Your task to perform on an android device: Clear all items from cart on walmart. Image 0: 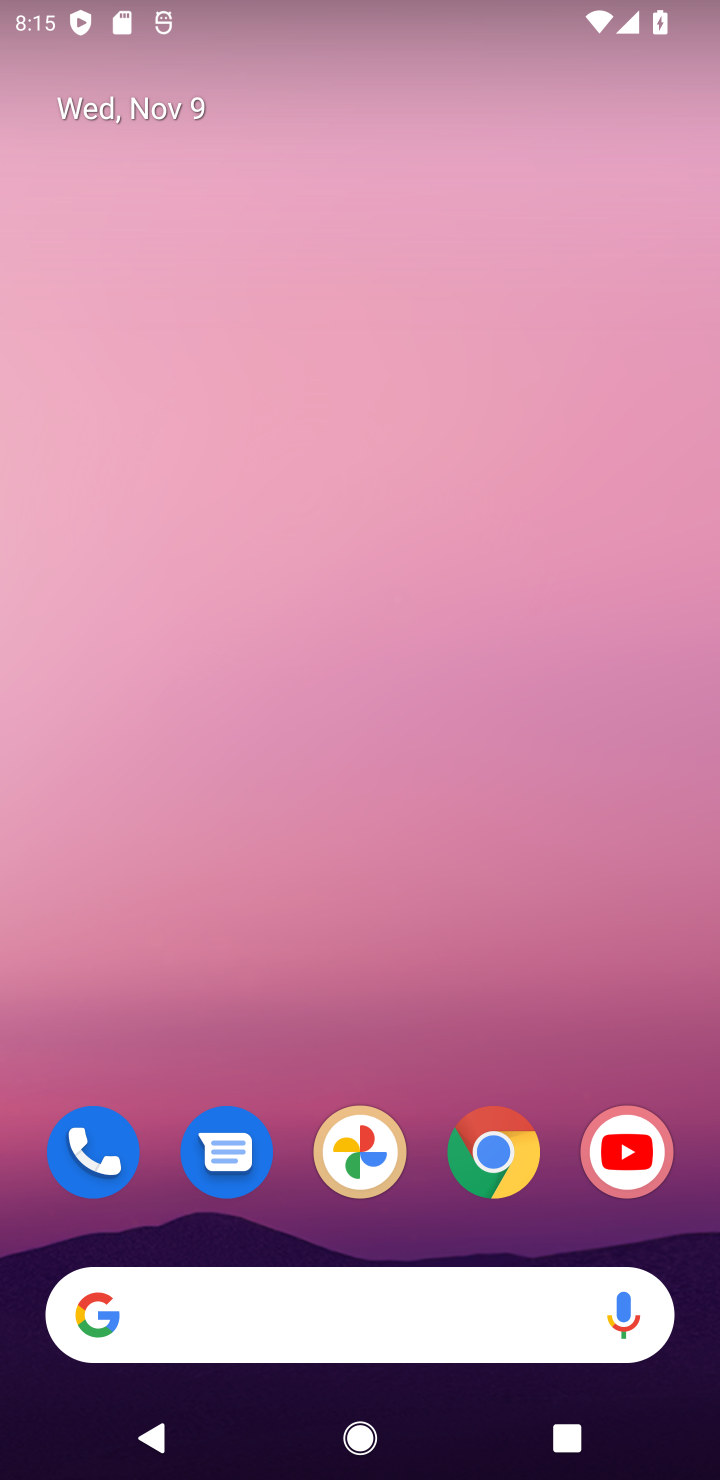
Step 0: click (500, 1149)
Your task to perform on an android device: Clear all items from cart on walmart. Image 1: 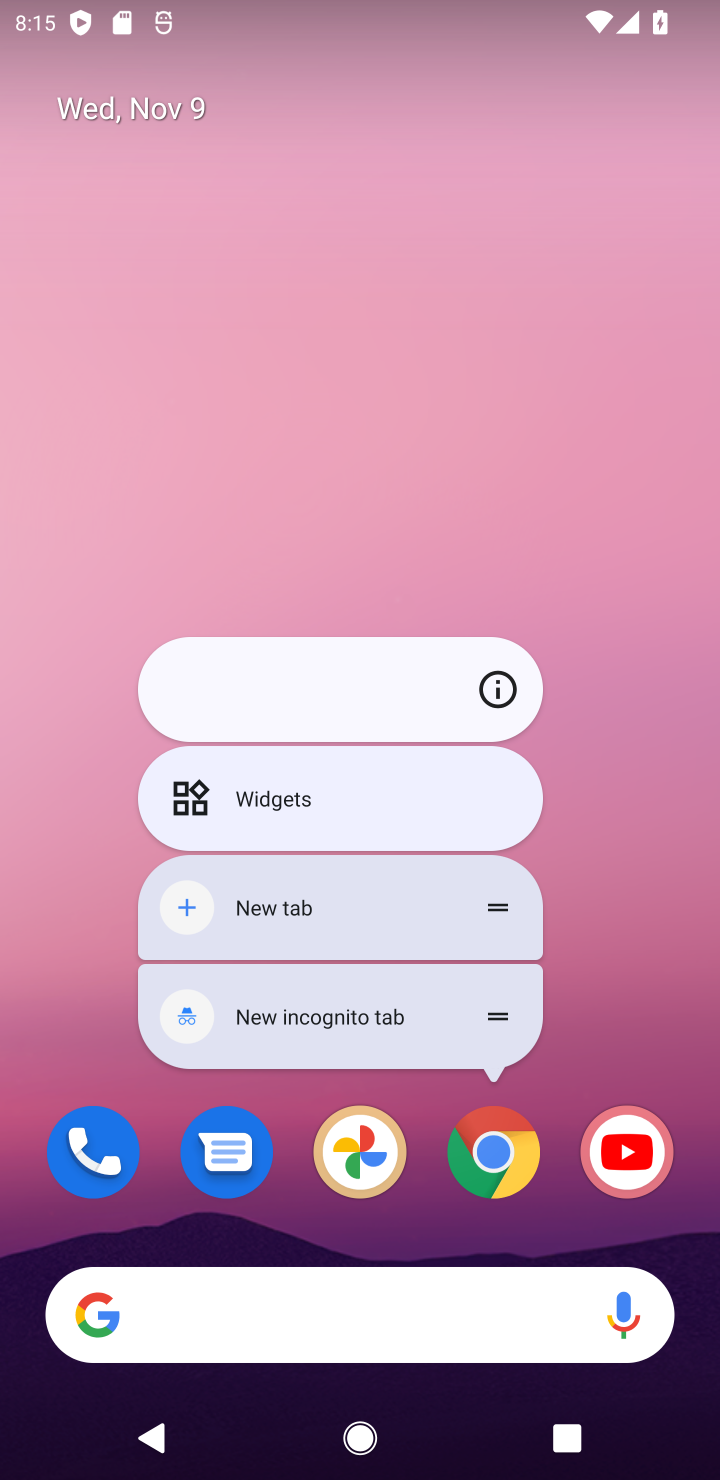
Step 1: click (500, 1149)
Your task to perform on an android device: Clear all items from cart on walmart. Image 2: 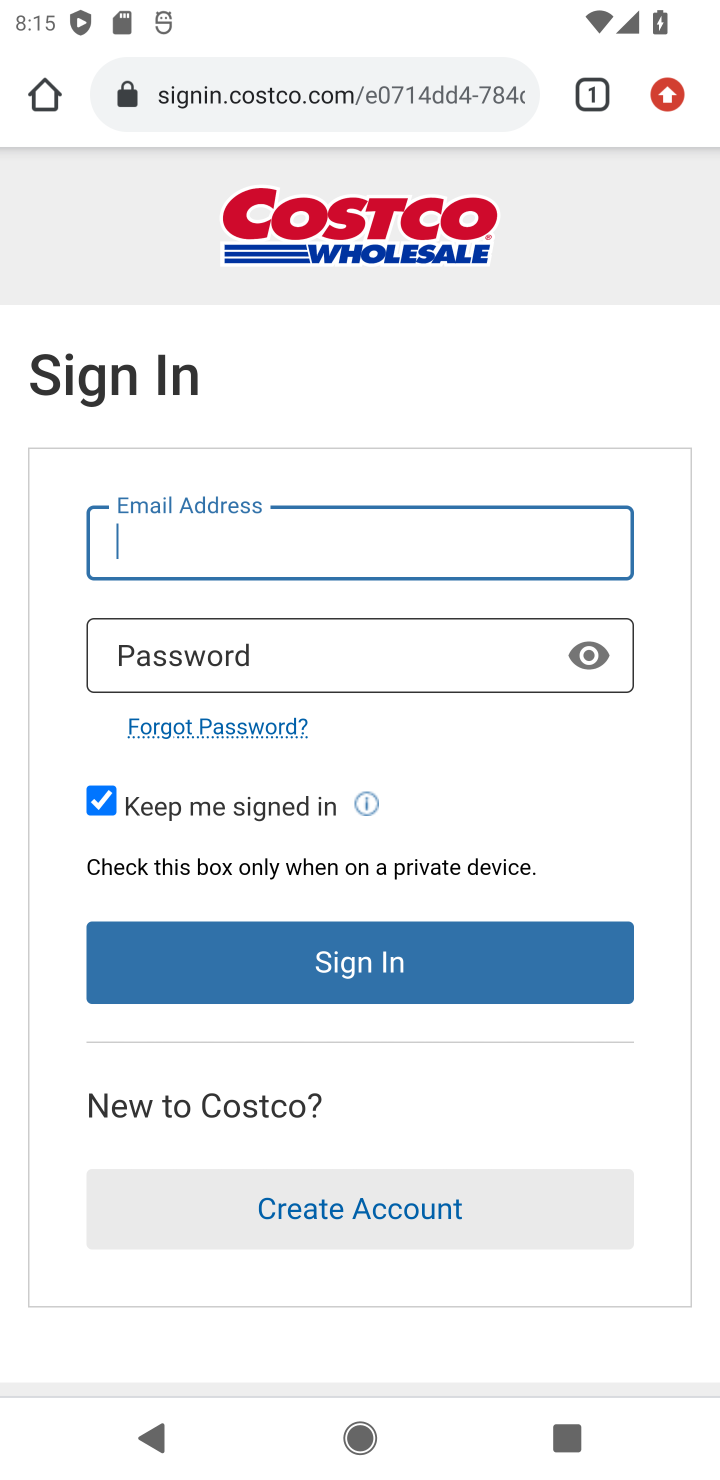
Step 2: click (415, 84)
Your task to perform on an android device: Clear all items from cart on walmart. Image 3: 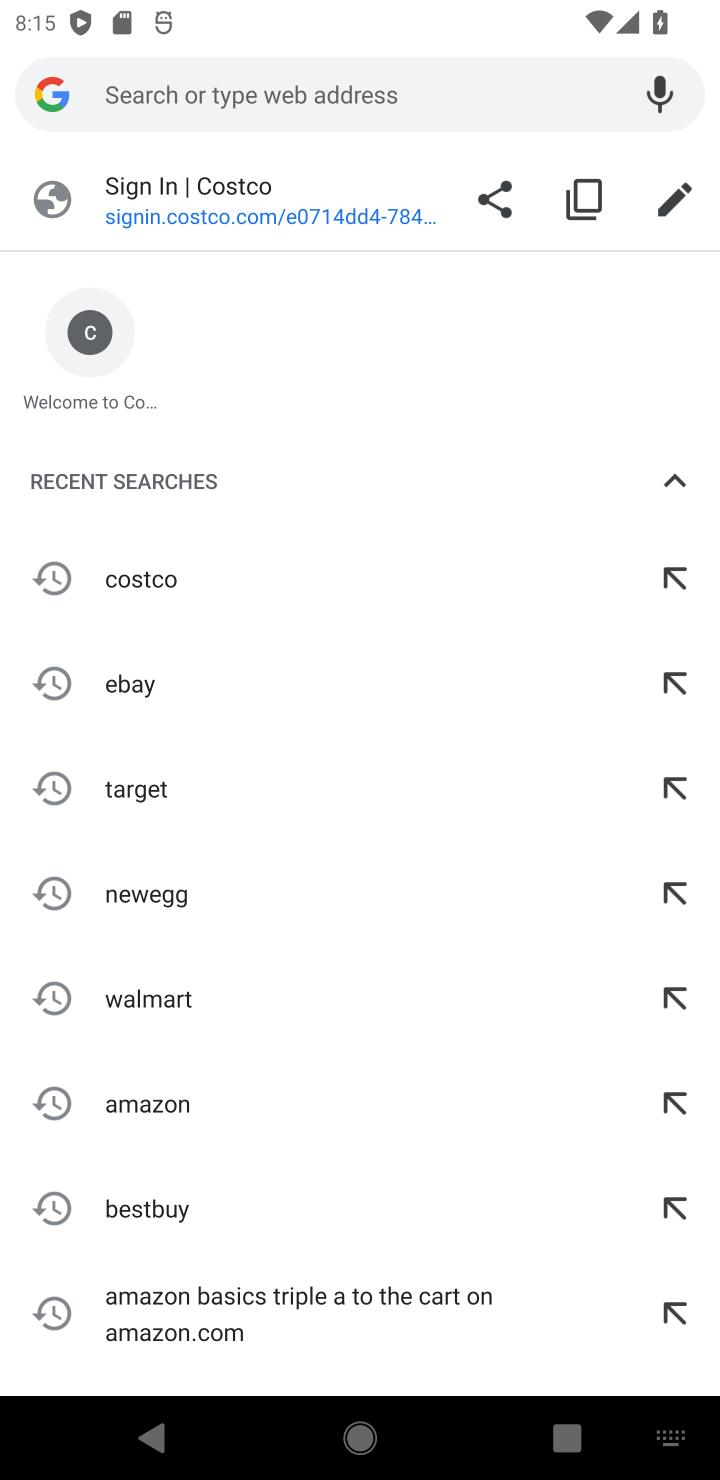
Step 3: click (140, 1001)
Your task to perform on an android device: Clear all items from cart on walmart. Image 4: 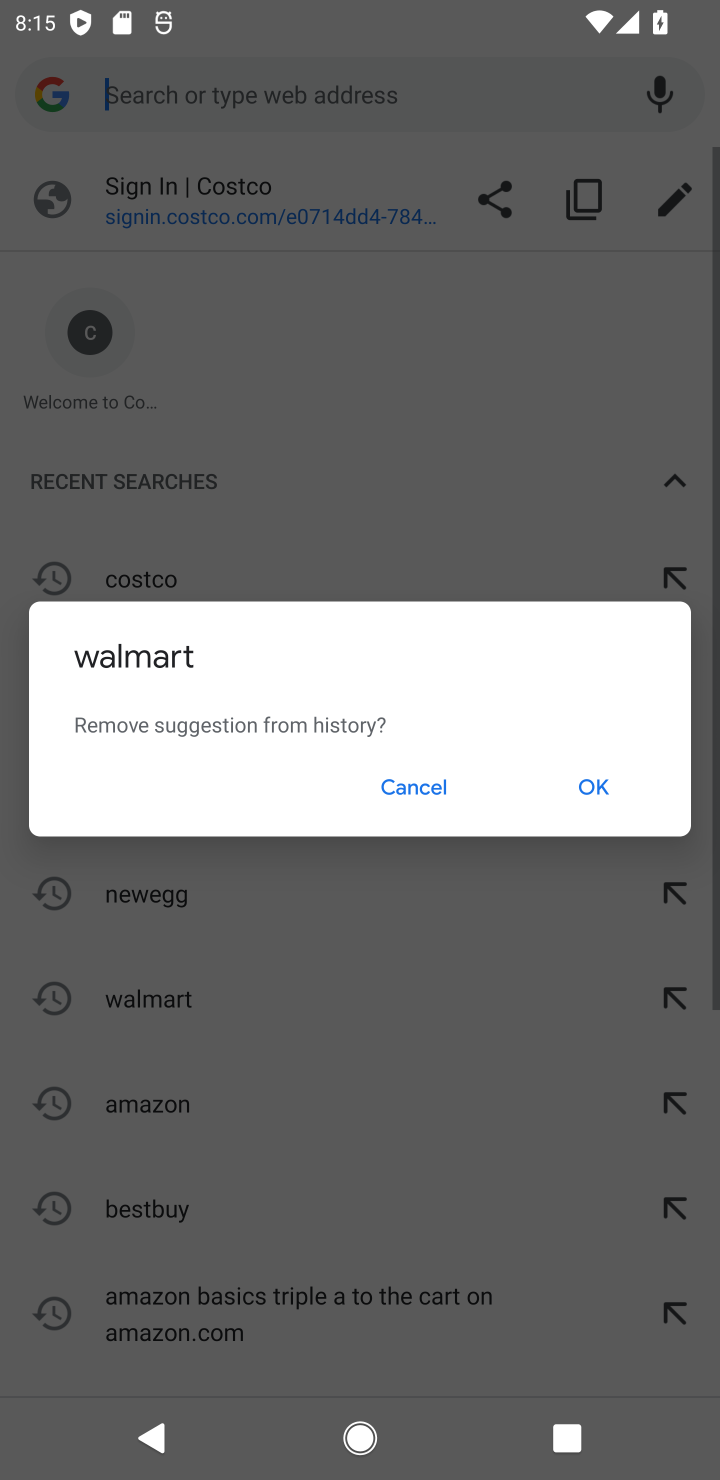
Step 4: click (419, 776)
Your task to perform on an android device: Clear all items from cart on walmart. Image 5: 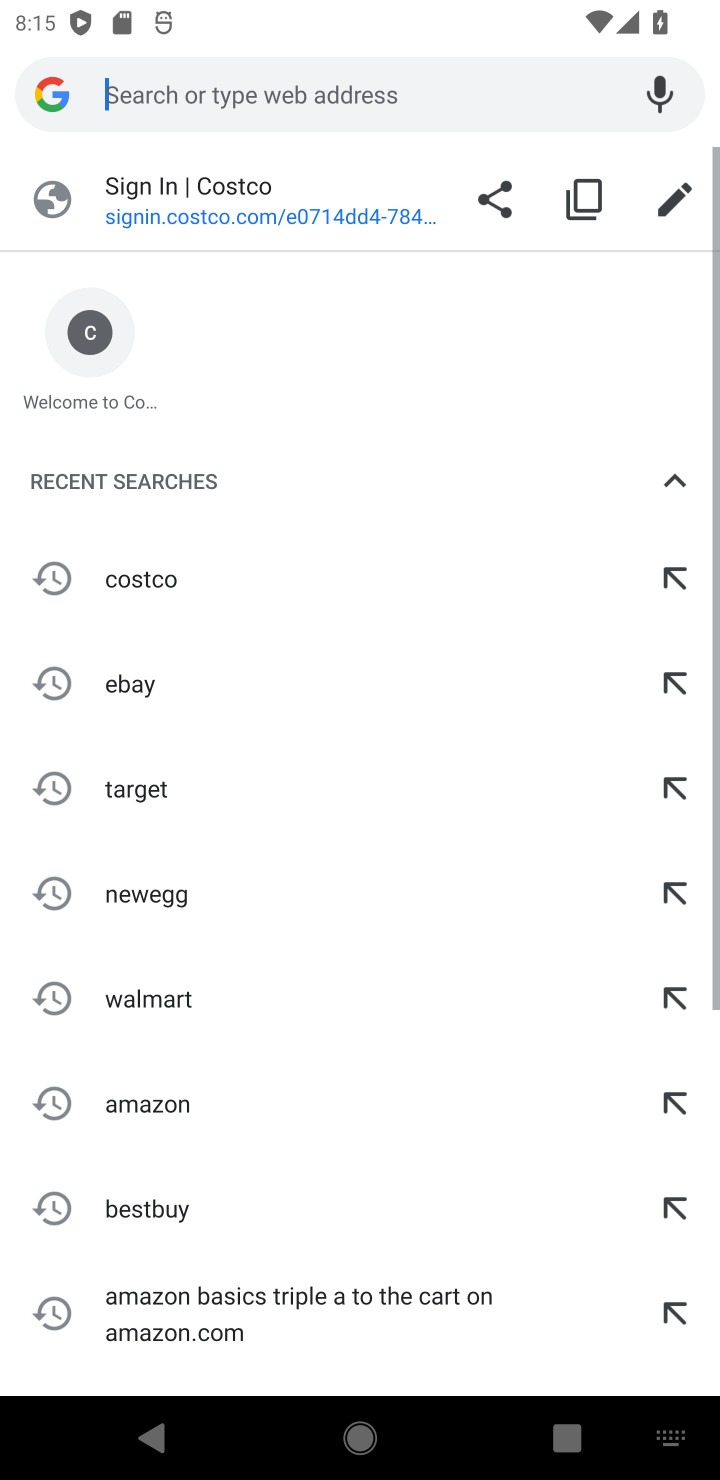
Step 5: click (143, 894)
Your task to perform on an android device: Clear all items from cart on walmart. Image 6: 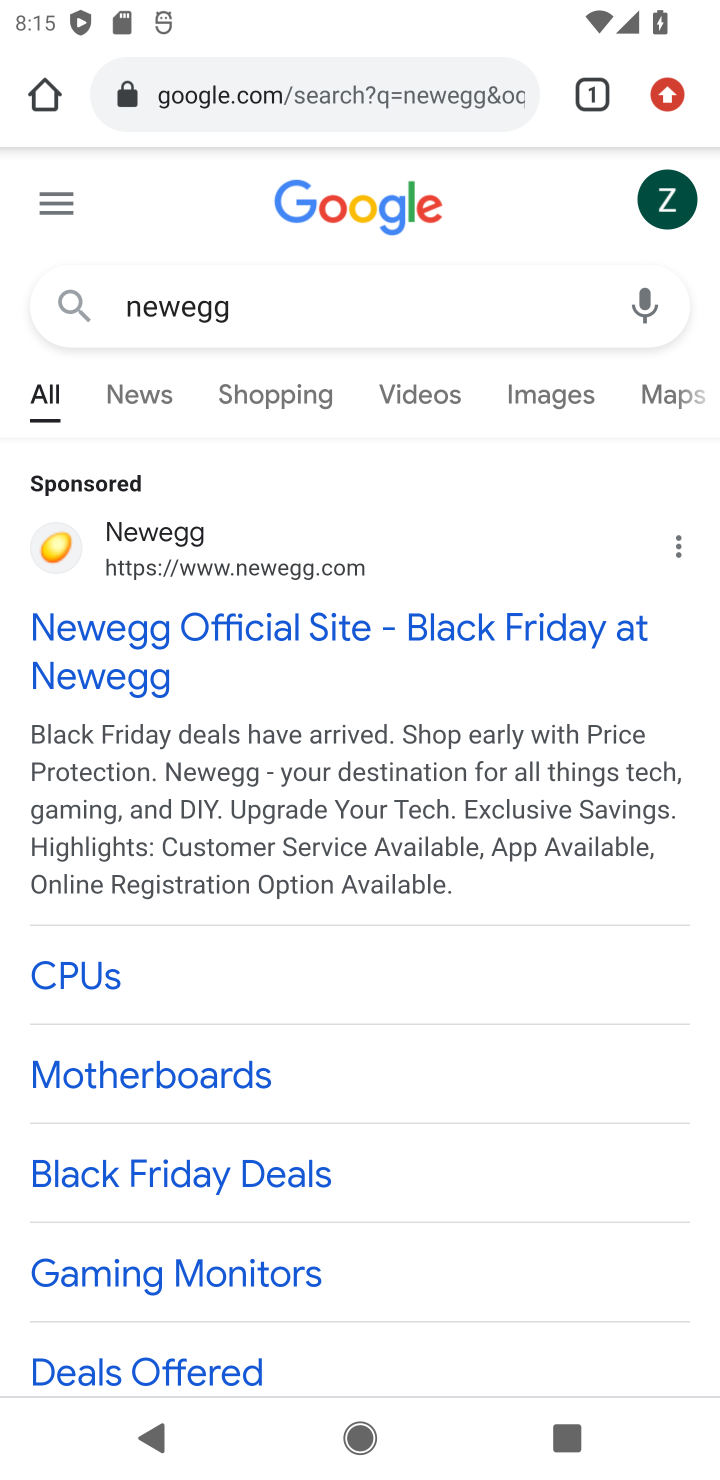
Step 6: click (200, 628)
Your task to perform on an android device: Clear all items from cart on walmart. Image 7: 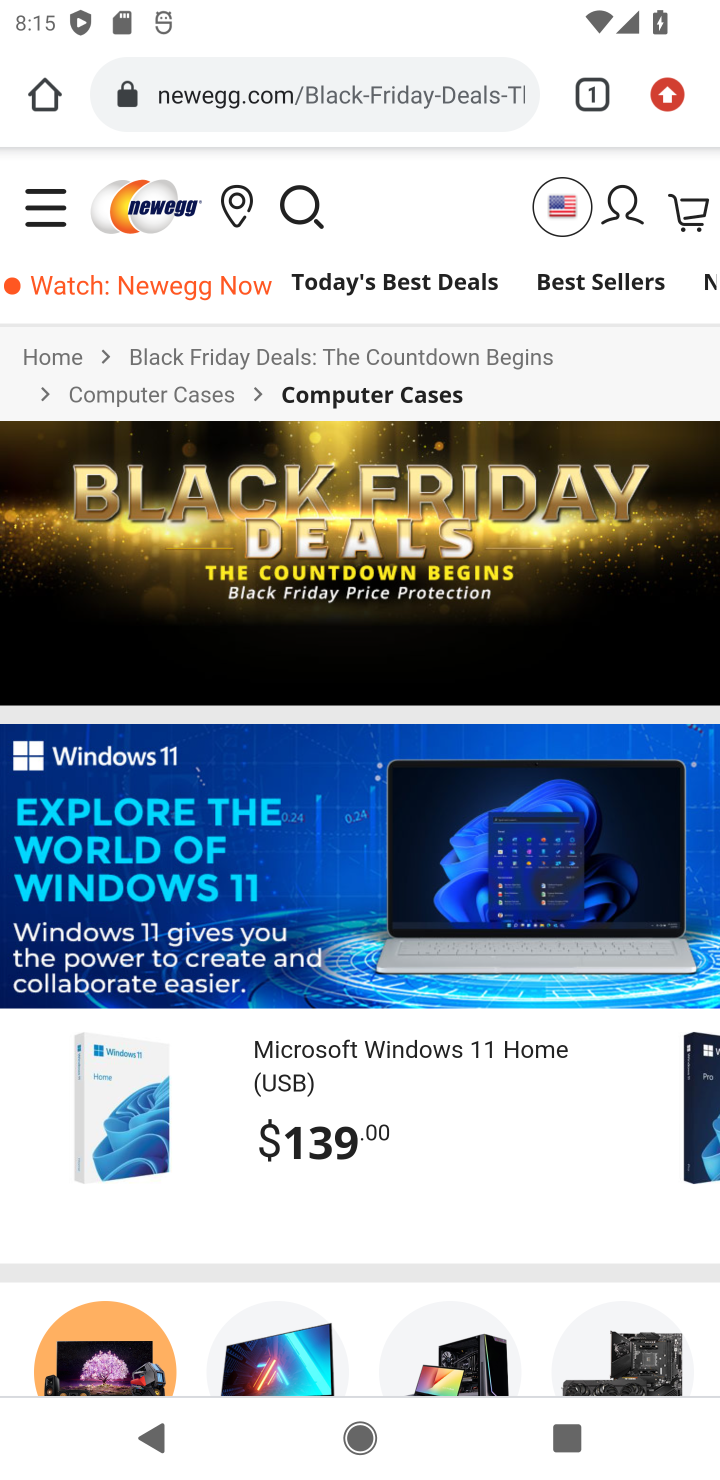
Step 7: click (410, 87)
Your task to perform on an android device: Clear all items from cart on walmart. Image 8: 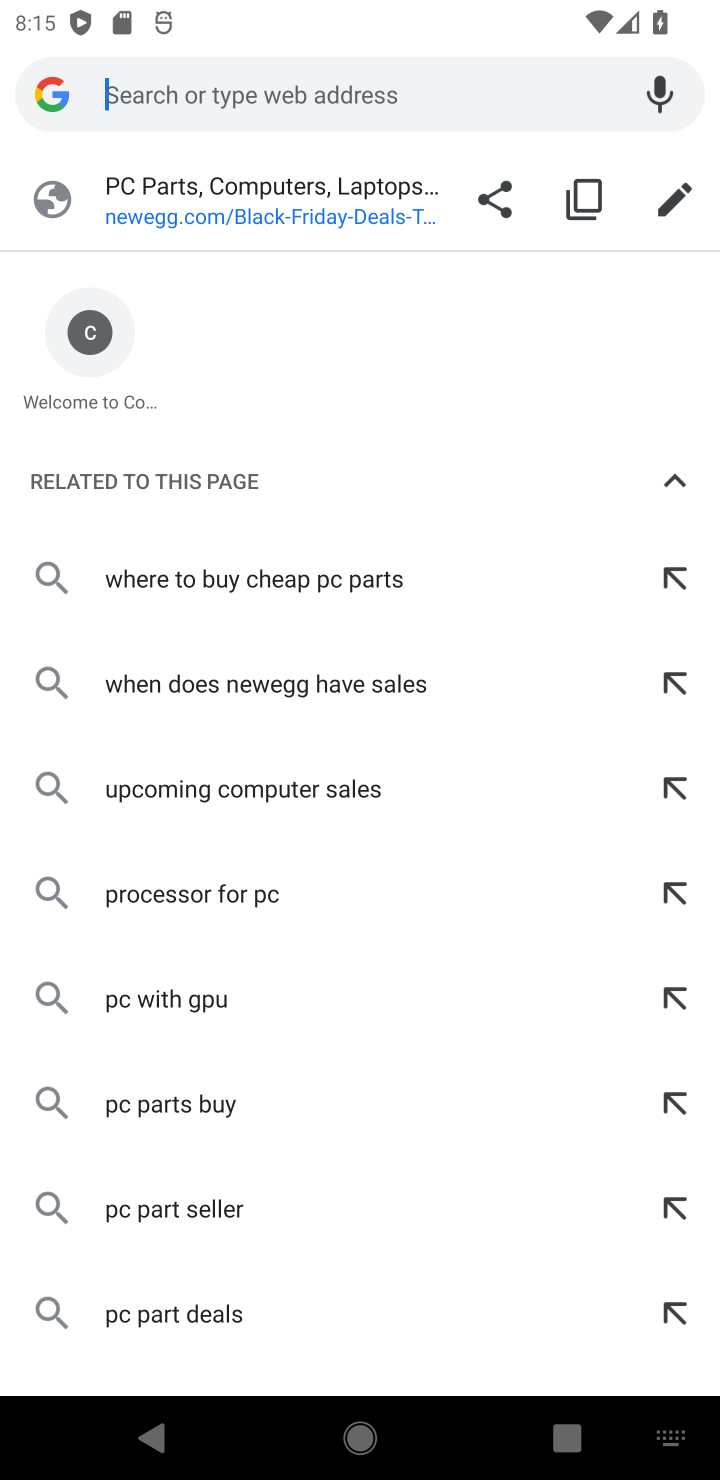
Step 8: type "walmart"
Your task to perform on an android device: Clear all items from cart on walmart. Image 9: 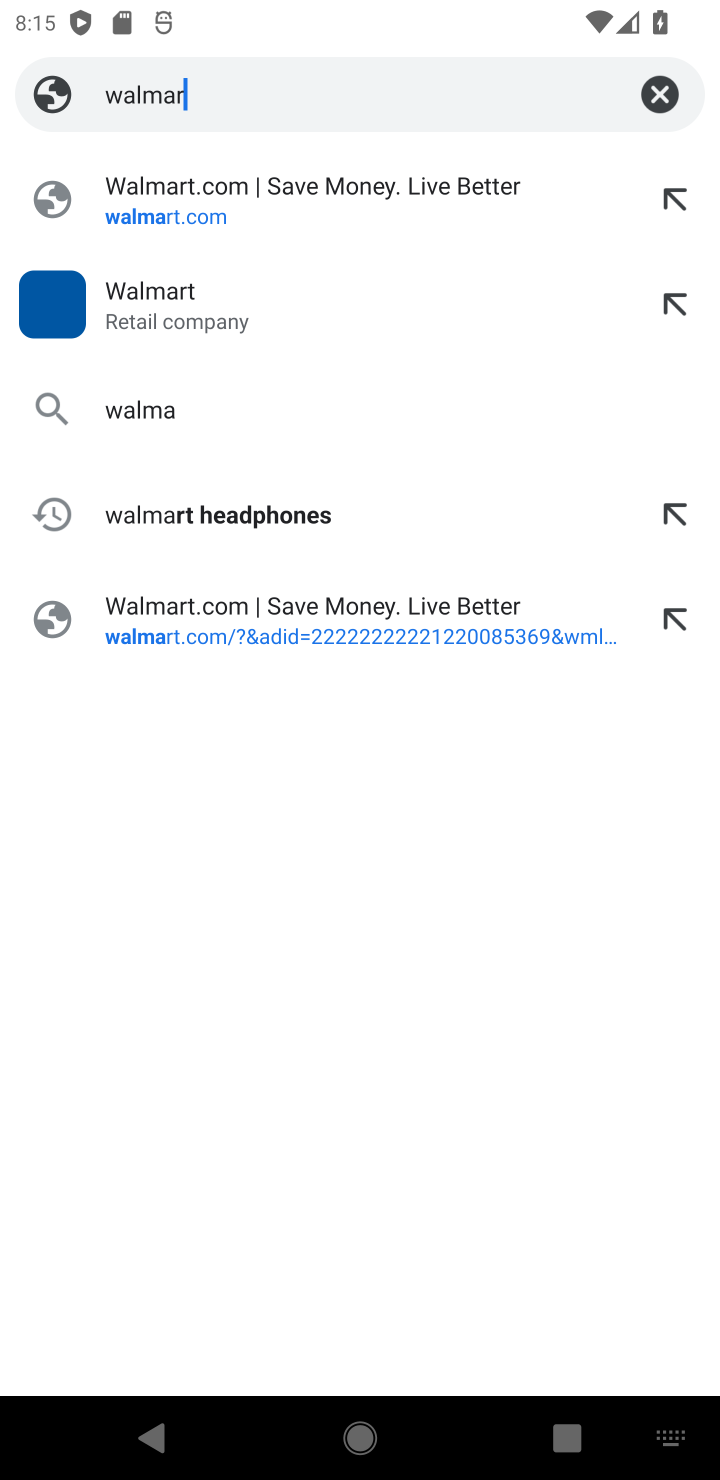
Step 9: press enter
Your task to perform on an android device: Clear all items from cart on walmart. Image 10: 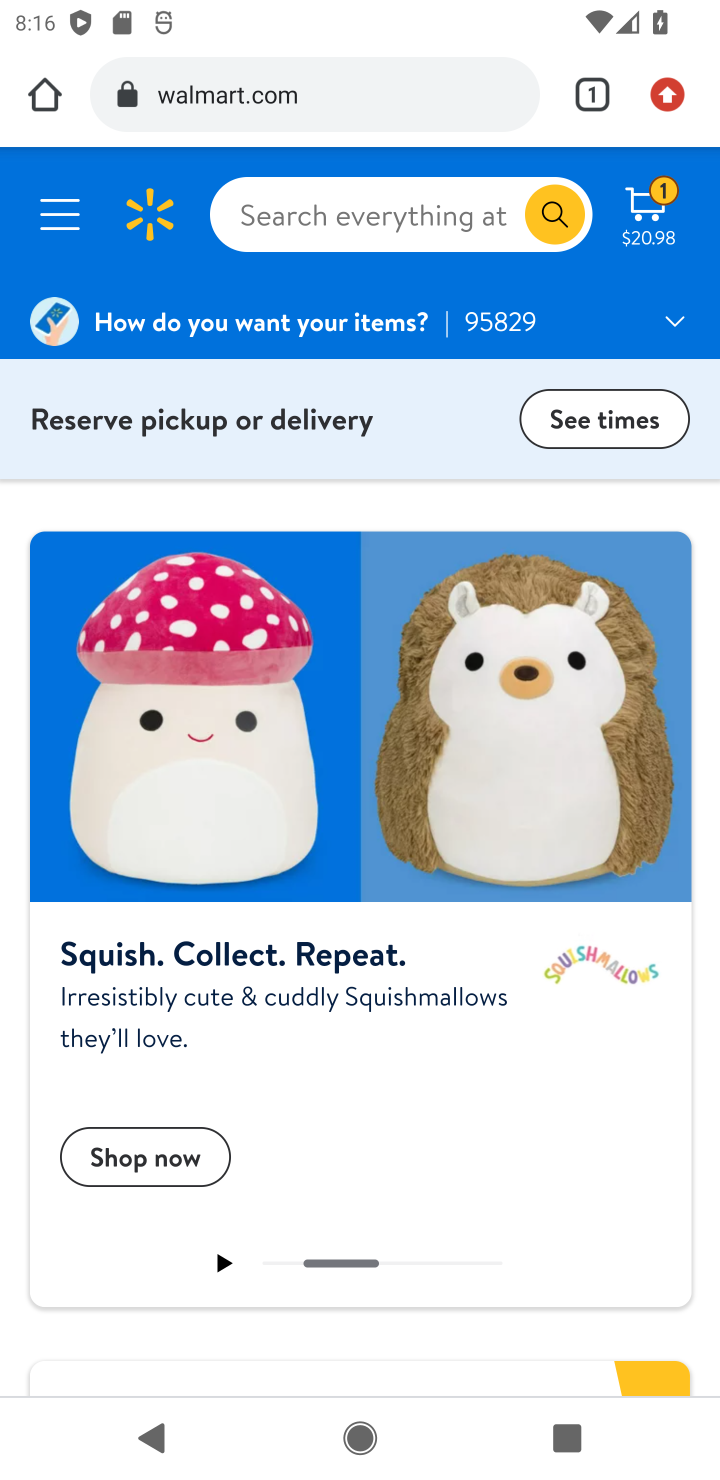
Step 10: click (271, 218)
Your task to perform on an android device: Clear all items from cart on walmart. Image 11: 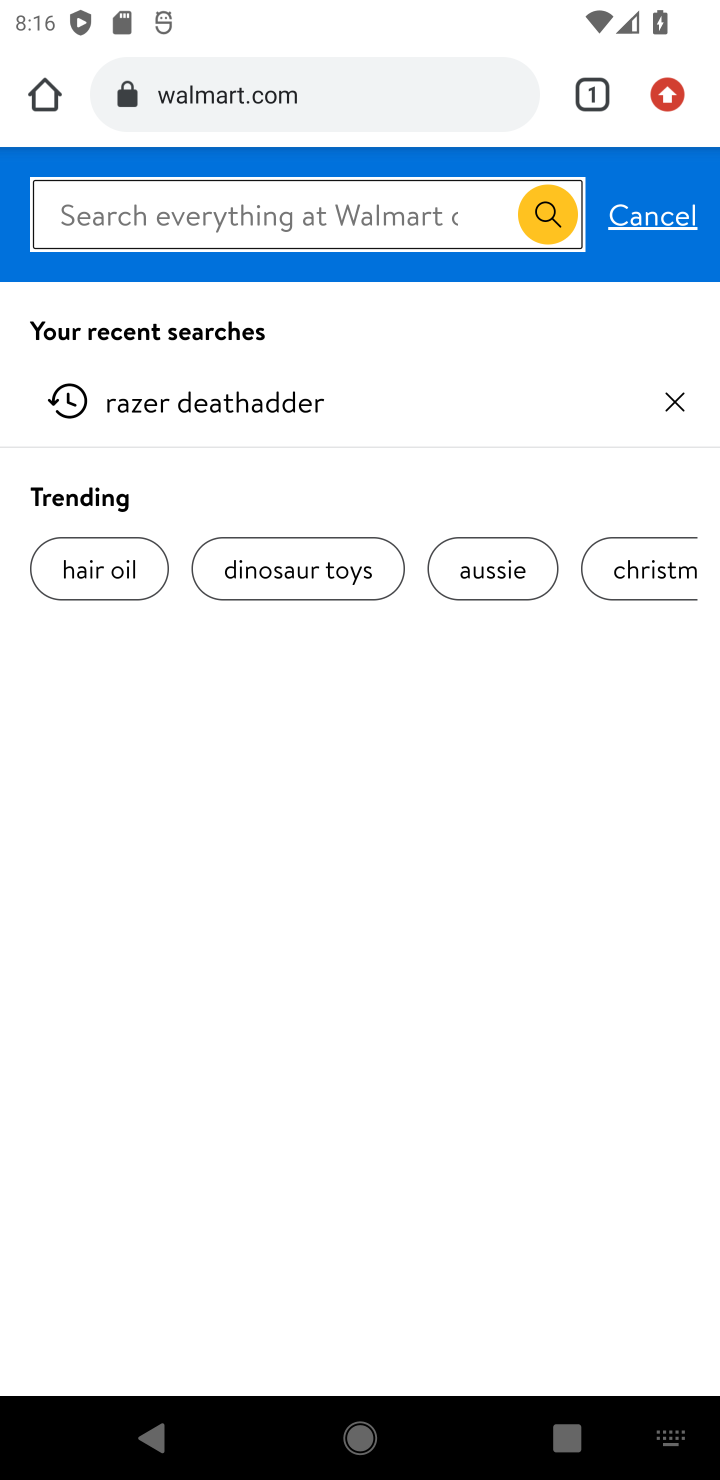
Step 11: click (629, 215)
Your task to perform on an android device: Clear all items from cart on walmart. Image 12: 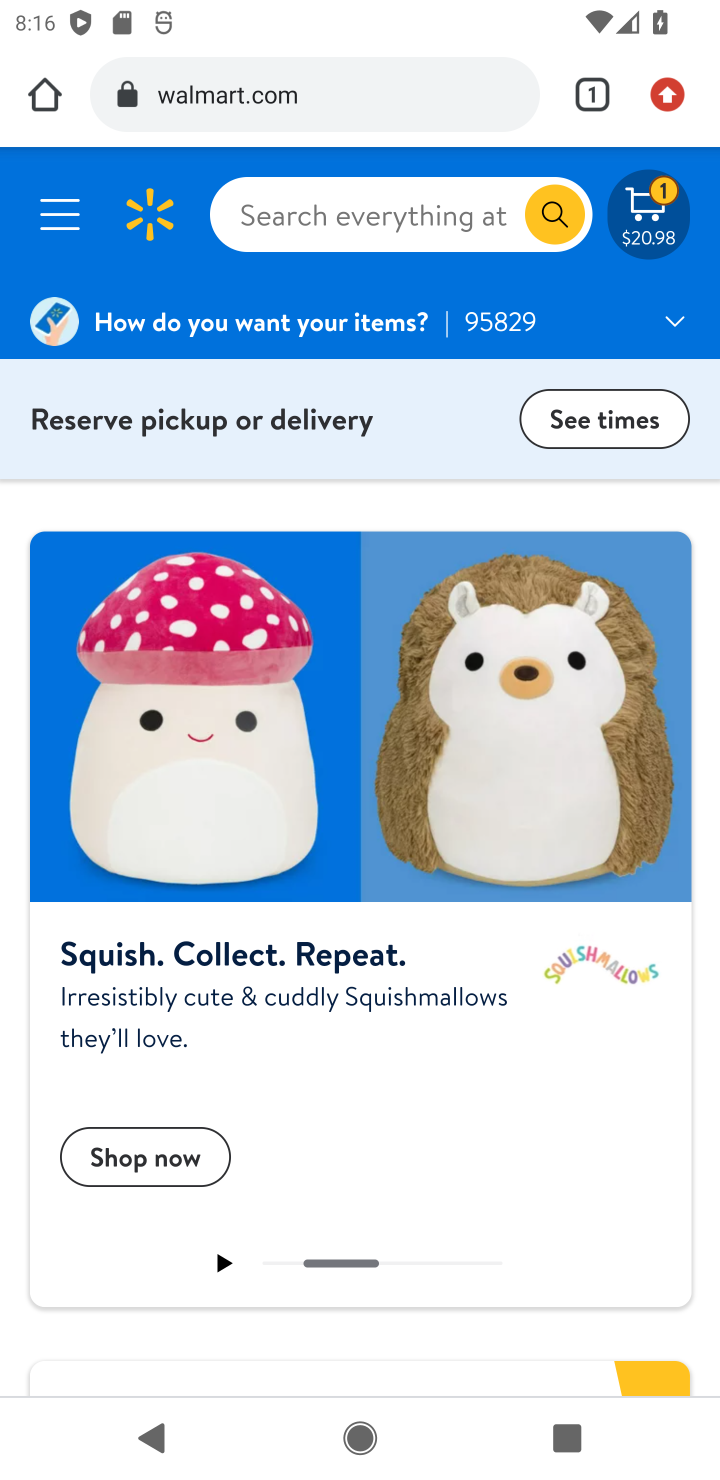
Step 12: click (663, 211)
Your task to perform on an android device: Clear all items from cart on walmart. Image 13: 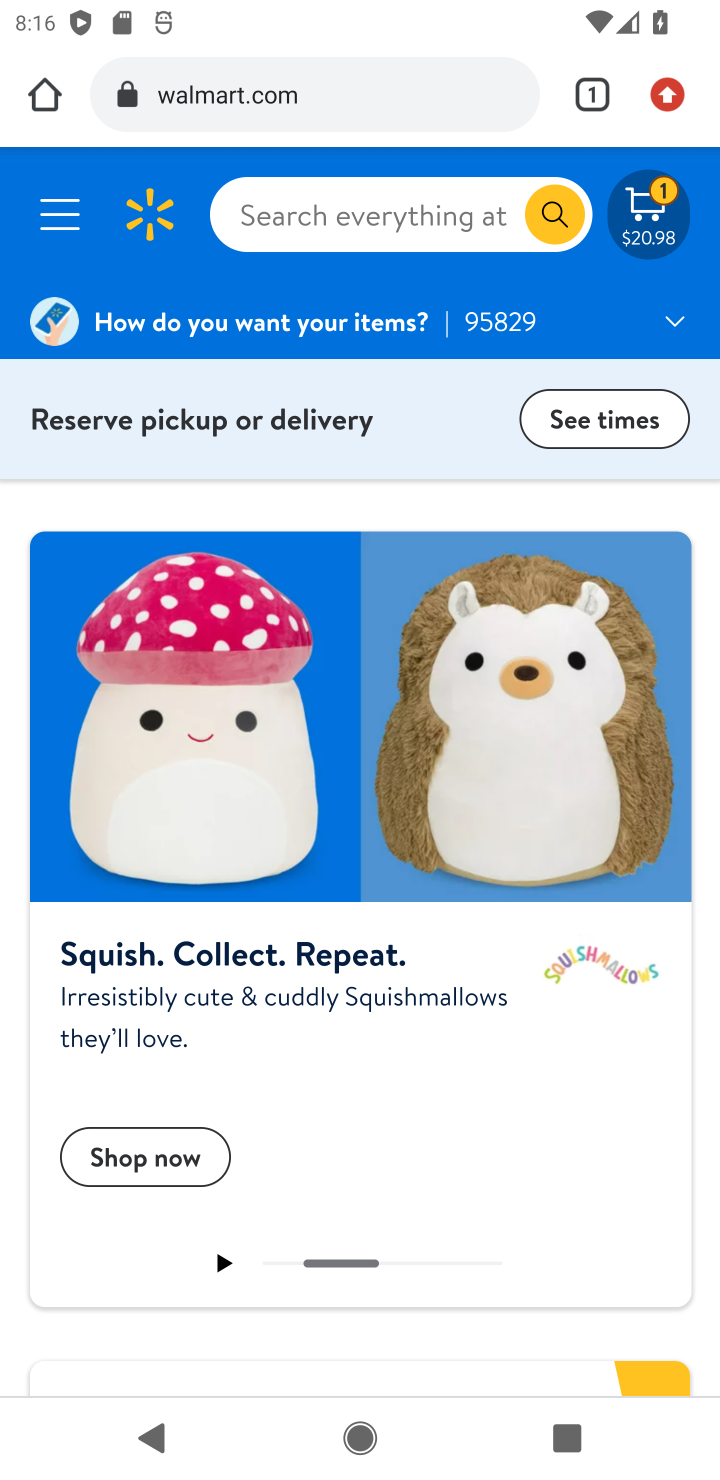
Step 13: click (648, 201)
Your task to perform on an android device: Clear all items from cart on walmart. Image 14: 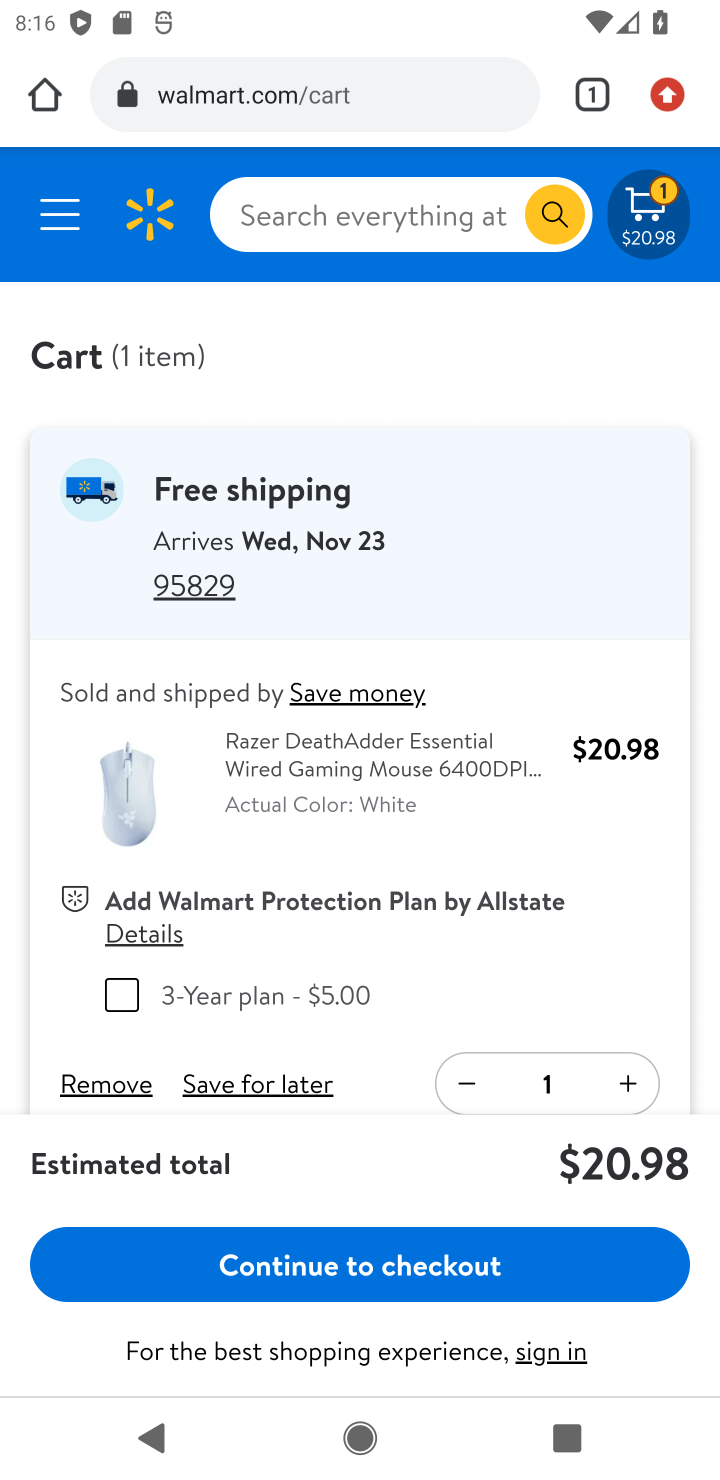
Step 14: drag from (271, 1022) to (514, 613)
Your task to perform on an android device: Clear all items from cart on walmart. Image 15: 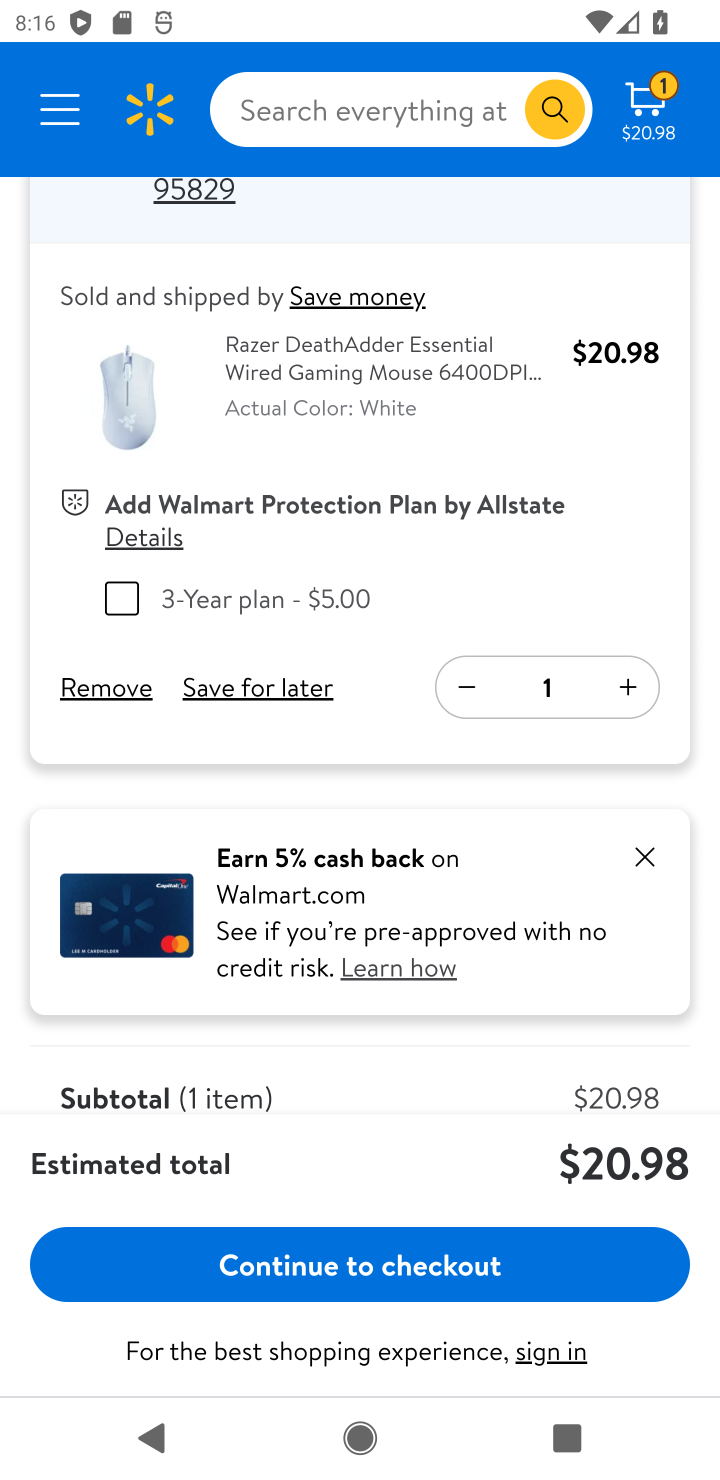
Step 15: click (111, 685)
Your task to perform on an android device: Clear all items from cart on walmart. Image 16: 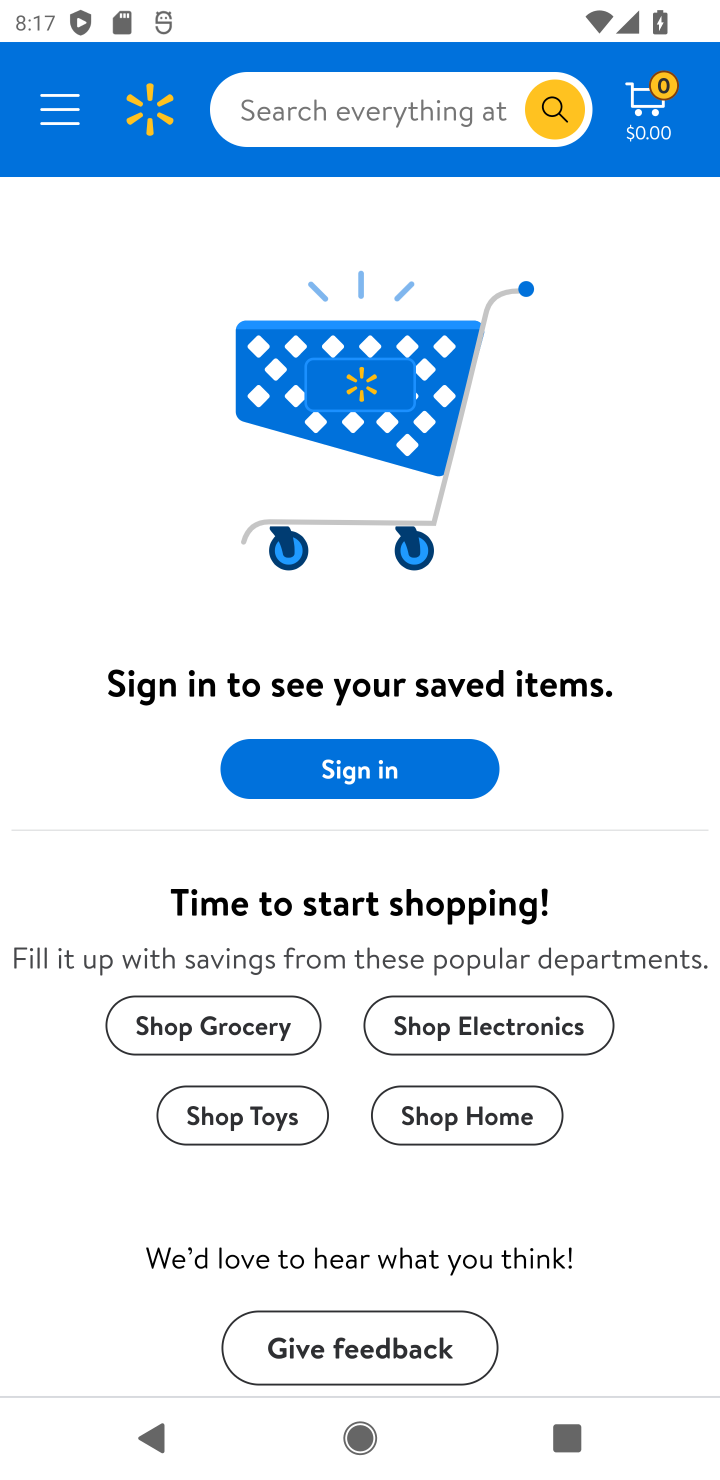
Step 16: task complete